Your task to perform on an android device: Open eBay Image 0: 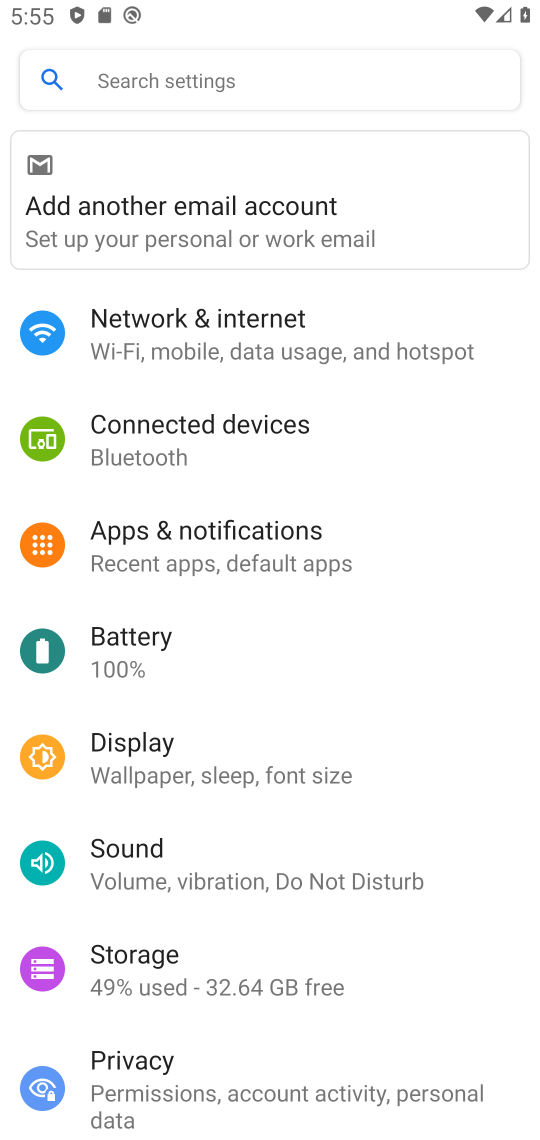
Step 0: press back button
Your task to perform on an android device: Open eBay Image 1: 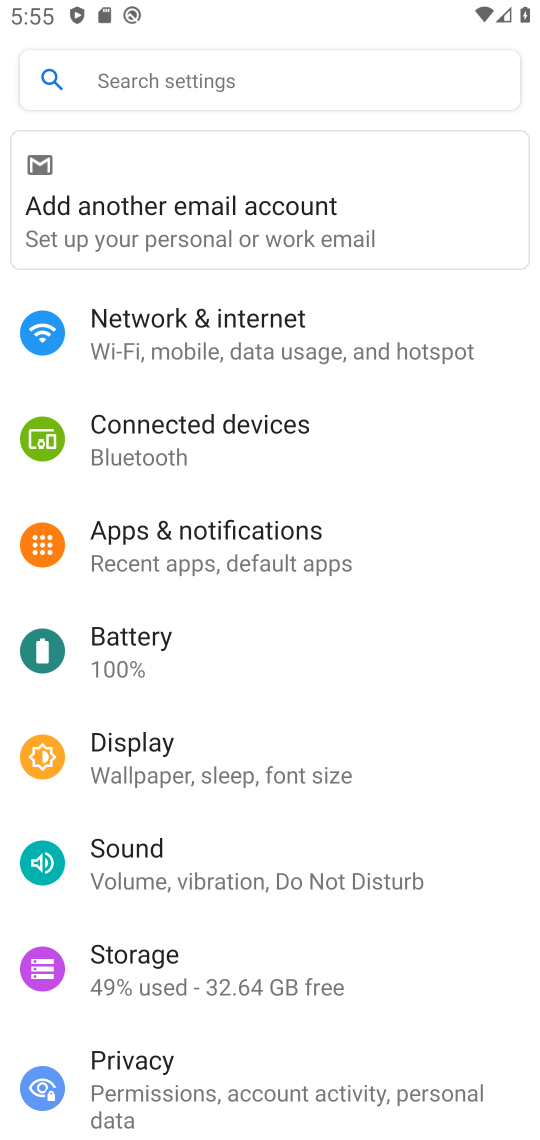
Step 1: press back button
Your task to perform on an android device: Open eBay Image 2: 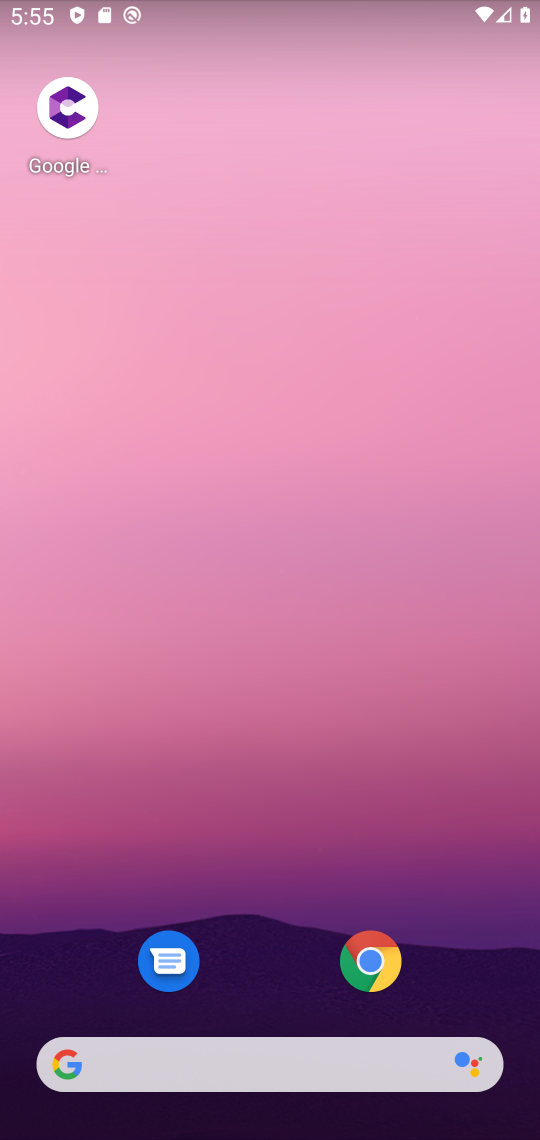
Step 2: press back button
Your task to perform on an android device: Open eBay Image 3: 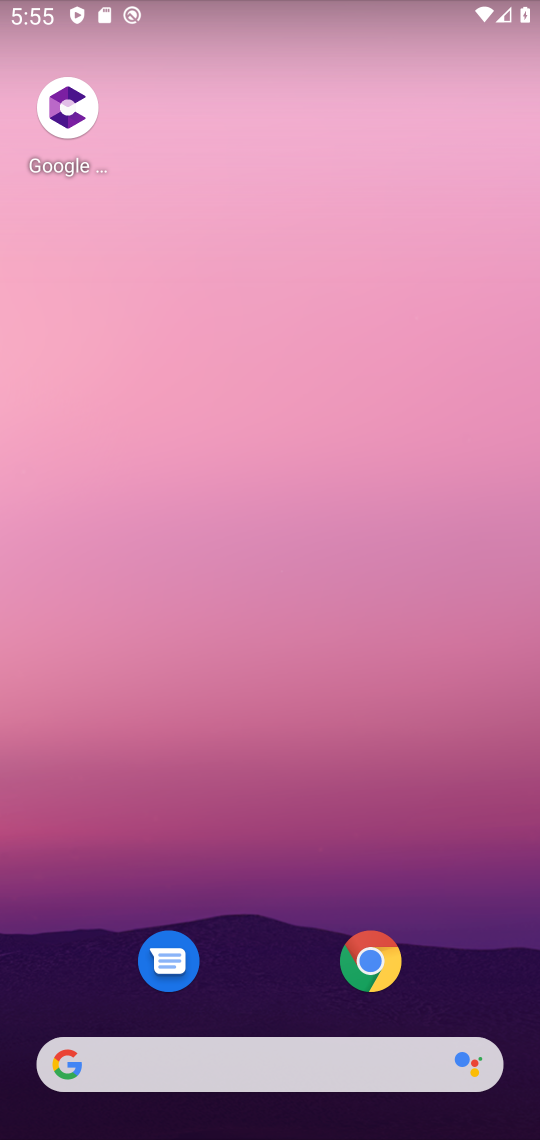
Step 3: drag from (239, 1000) to (175, 401)
Your task to perform on an android device: Open eBay Image 4: 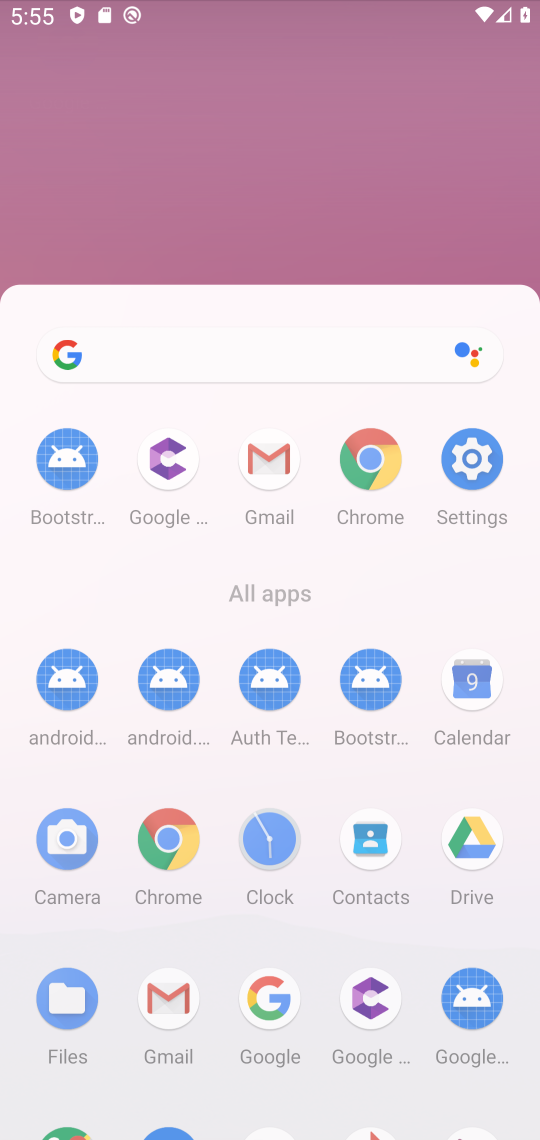
Step 4: drag from (123, 308) to (263, 548)
Your task to perform on an android device: Open eBay Image 5: 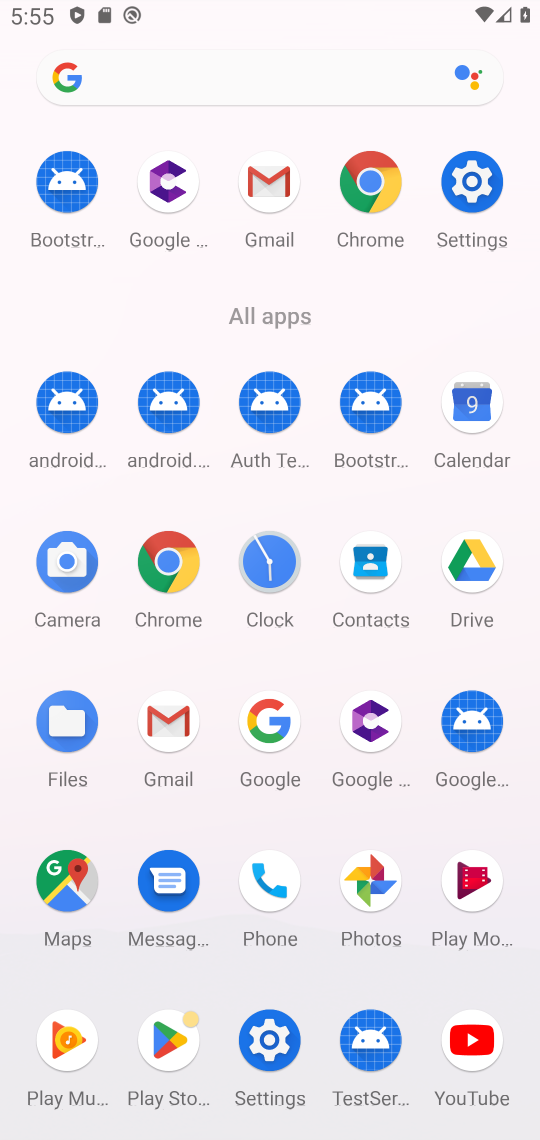
Step 5: click (349, 196)
Your task to perform on an android device: Open eBay Image 6: 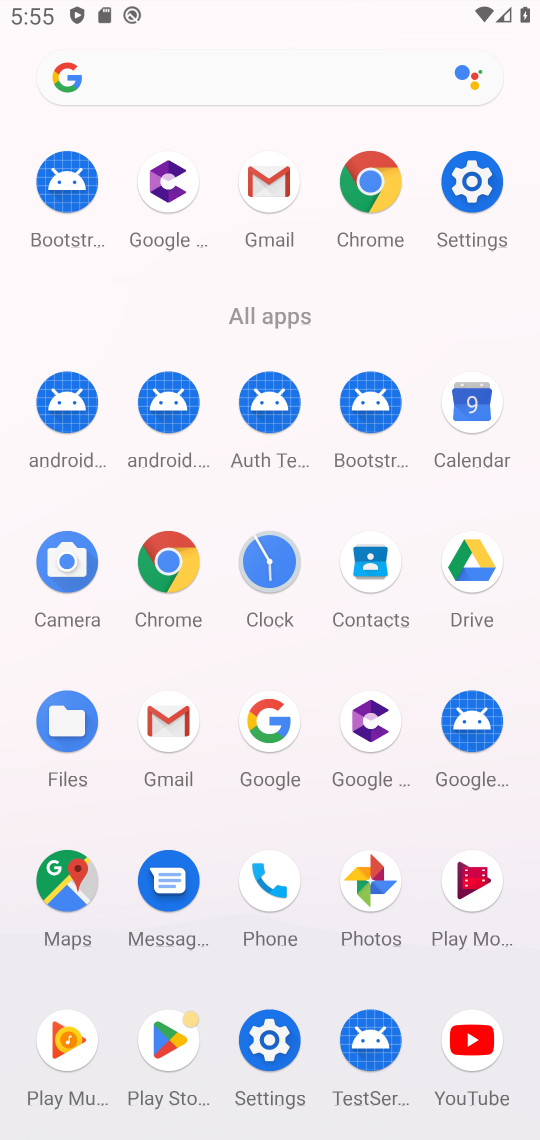
Step 6: click (350, 201)
Your task to perform on an android device: Open eBay Image 7: 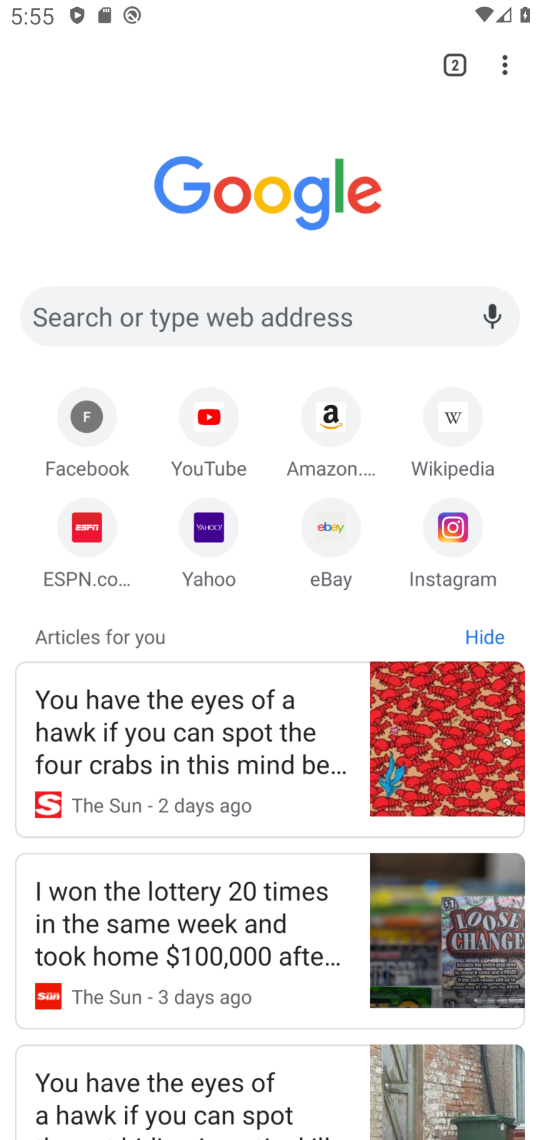
Step 7: click (387, 209)
Your task to perform on an android device: Open eBay Image 8: 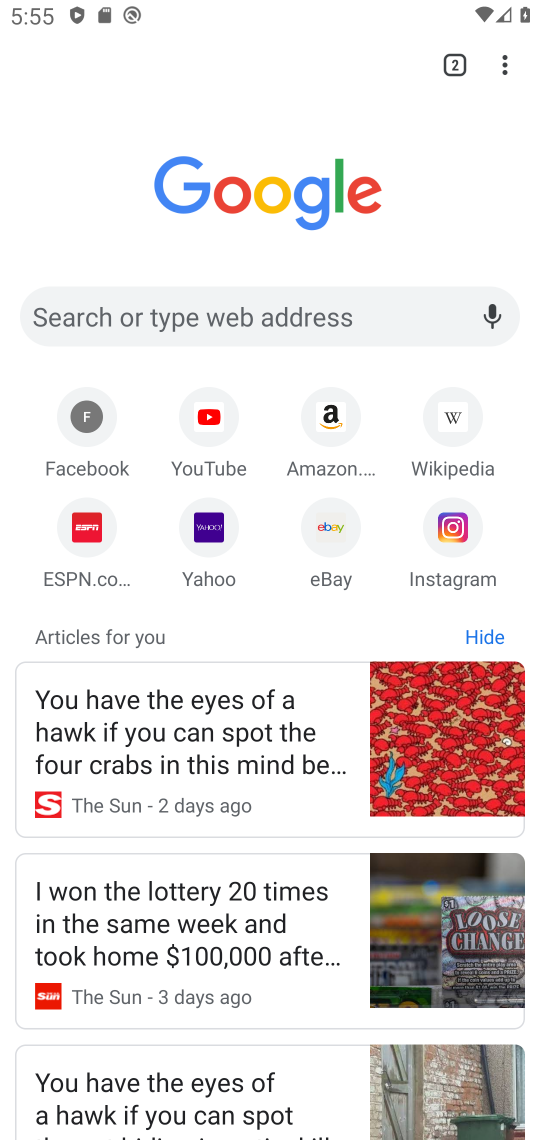
Step 8: click (340, 534)
Your task to perform on an android device: Open eBay Image 9: 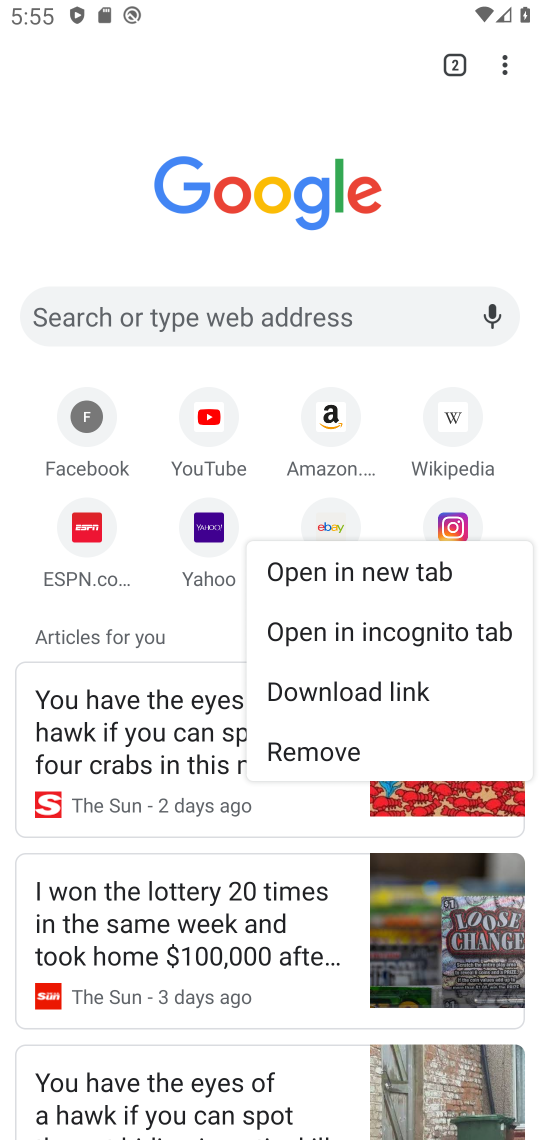
Step 9: click (344, 525)
Your task to perform on an android device: Open eBay Image 10: 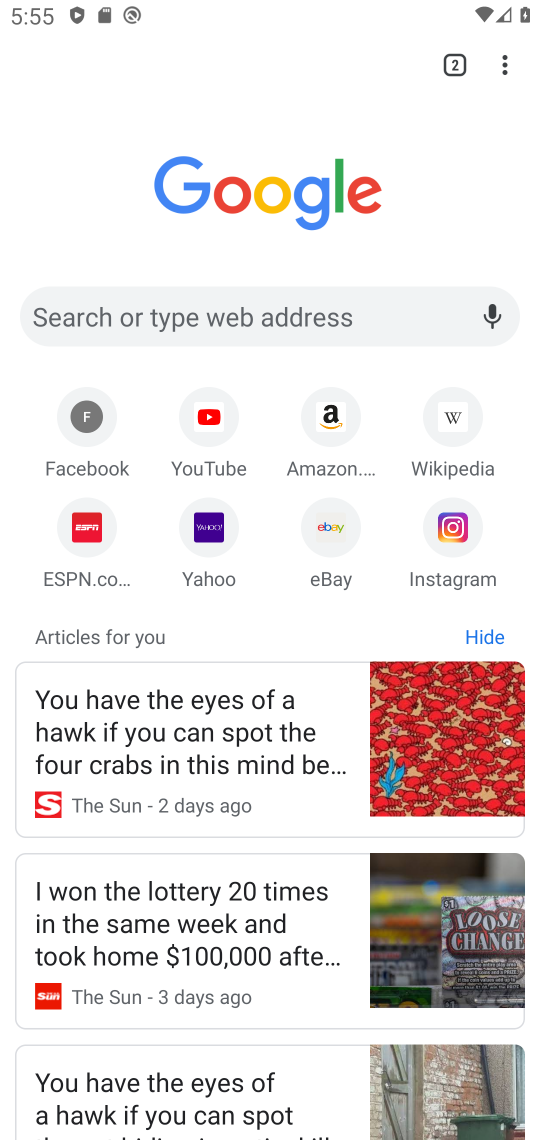
Step 10: click (322, 522)
Your task to perform on an android device: Open eBay Image 11: 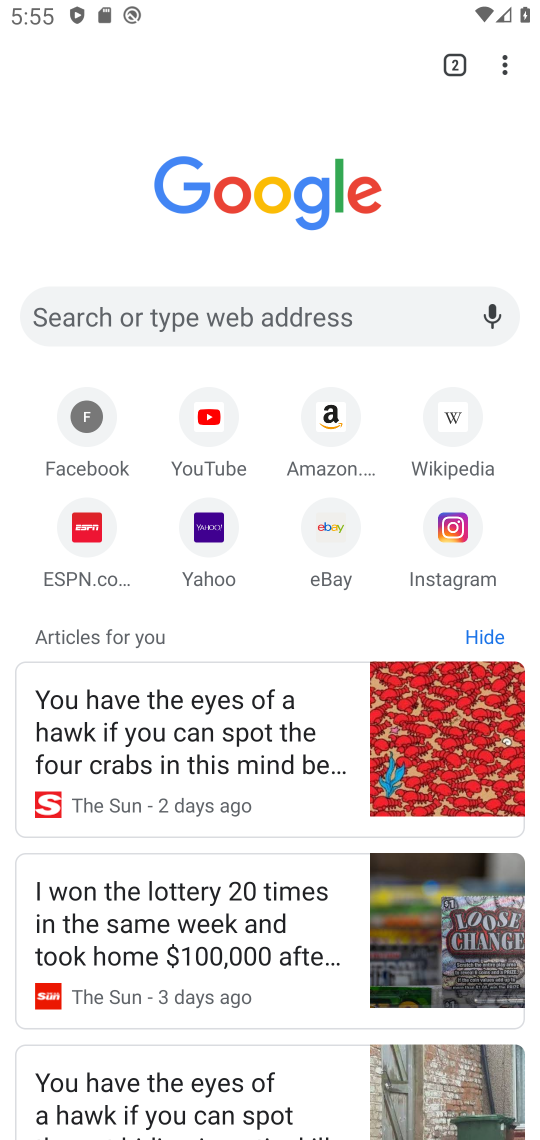
Step 11: click (329, 446)
Your task to perform on an android device: Open eBay Image 12: 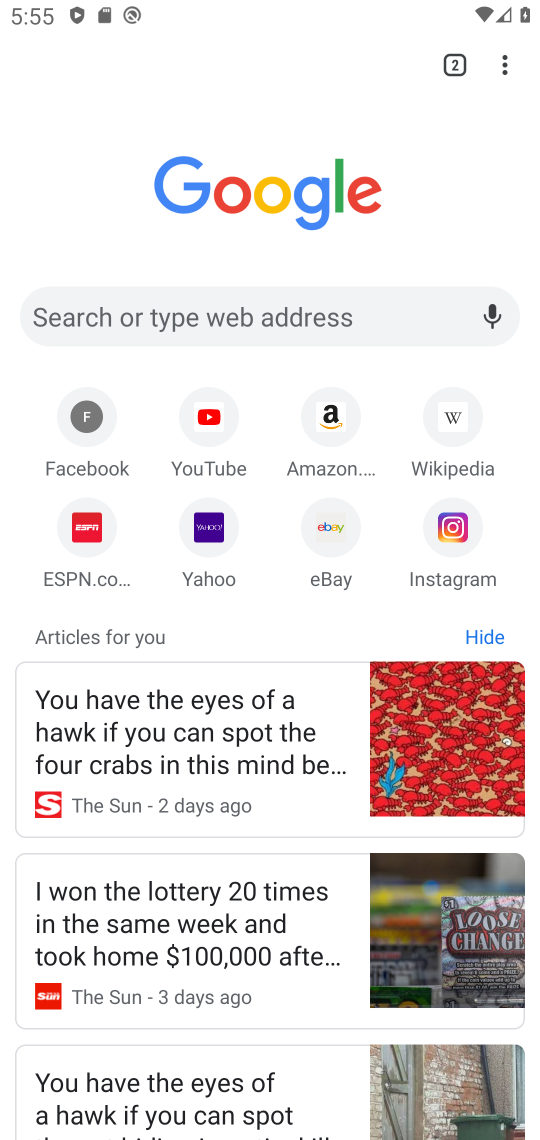
Step 12: click (318, 516)
Your task to perform on an android device: Open eBay Image 13: 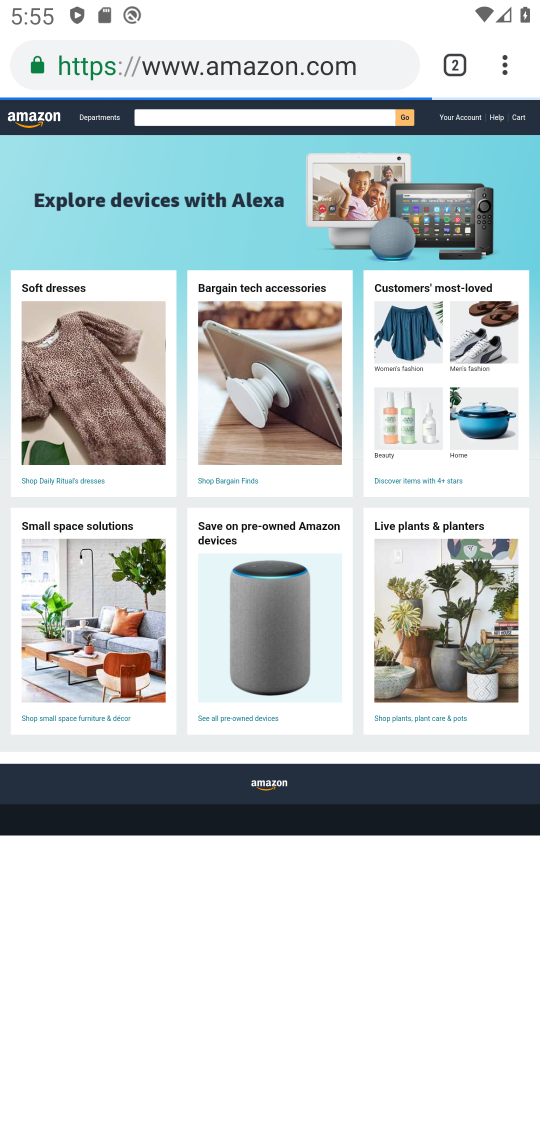
Step 13: task complete